Your task to perform on an android device: uninstall "HBO Max: Stream TV & Movies" Image 0: 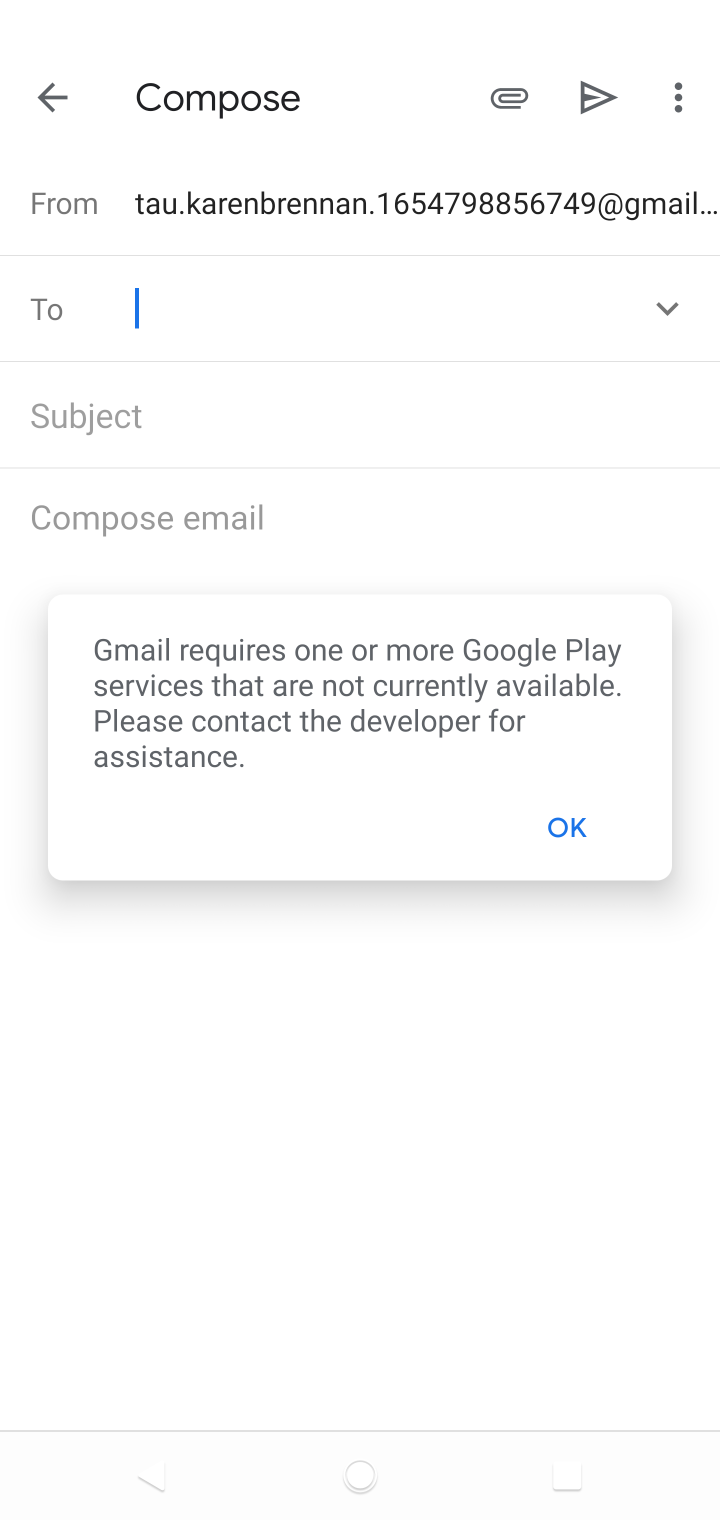
Step 0: press home button
Your task to perform on an android device: uninstall "HBO Max: Stream TV & Movies" Image 1: 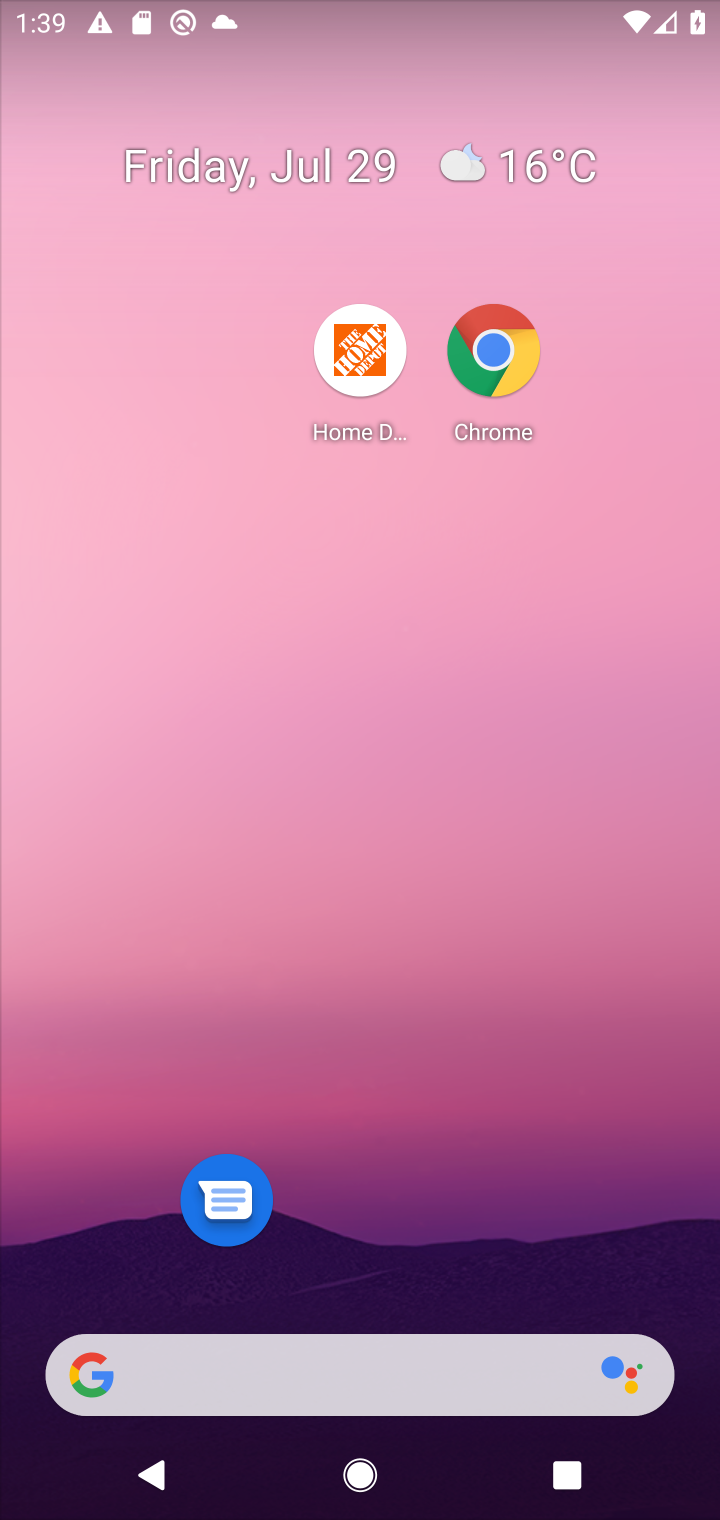
Step 1: drag from (584, 1219) to (385, 125)
Your task to perform on an android device: uninstall "HBO Max: Stream TV & Movies" Image 2: 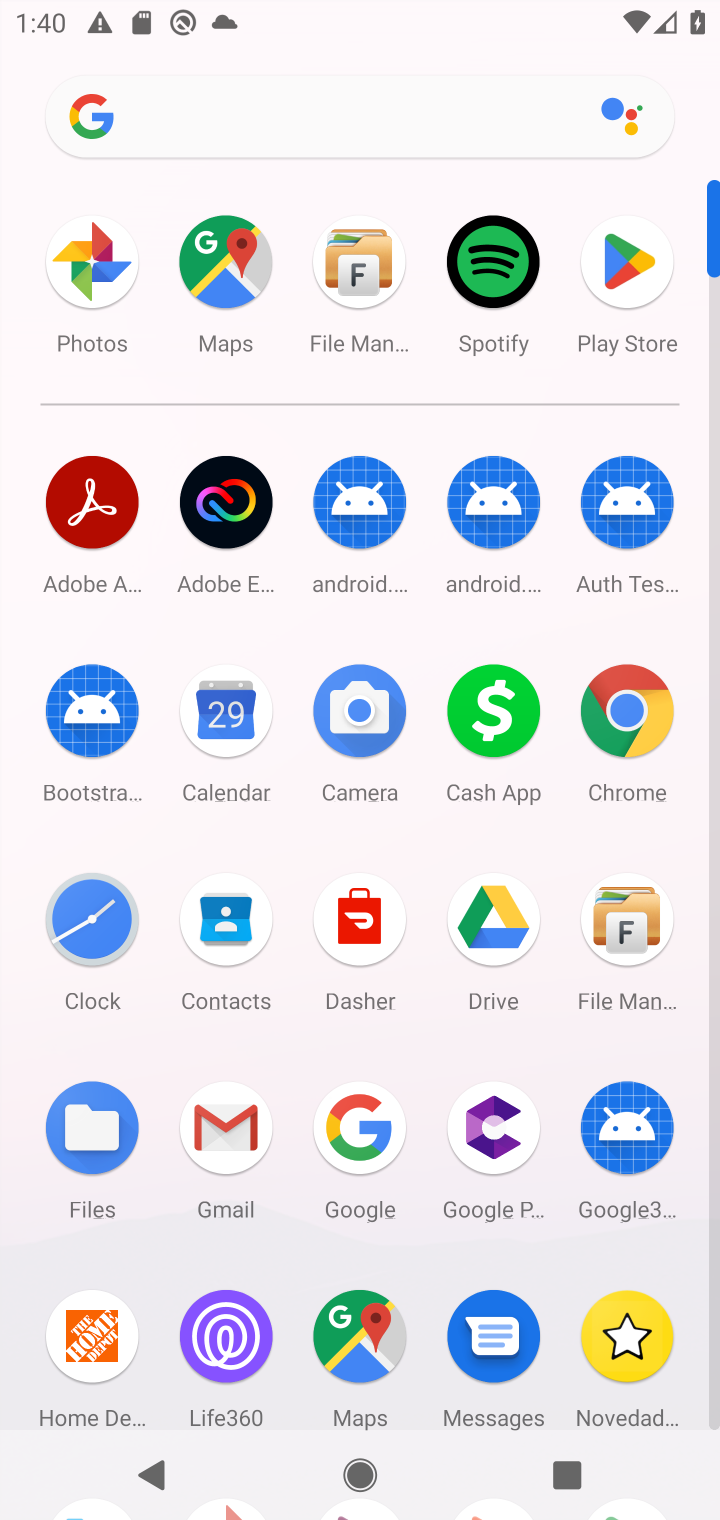
Step 2: click (621, 261)
Your task to perform on an android device: uninstall "HBO Max: Stream TV & Movies" Image 3: 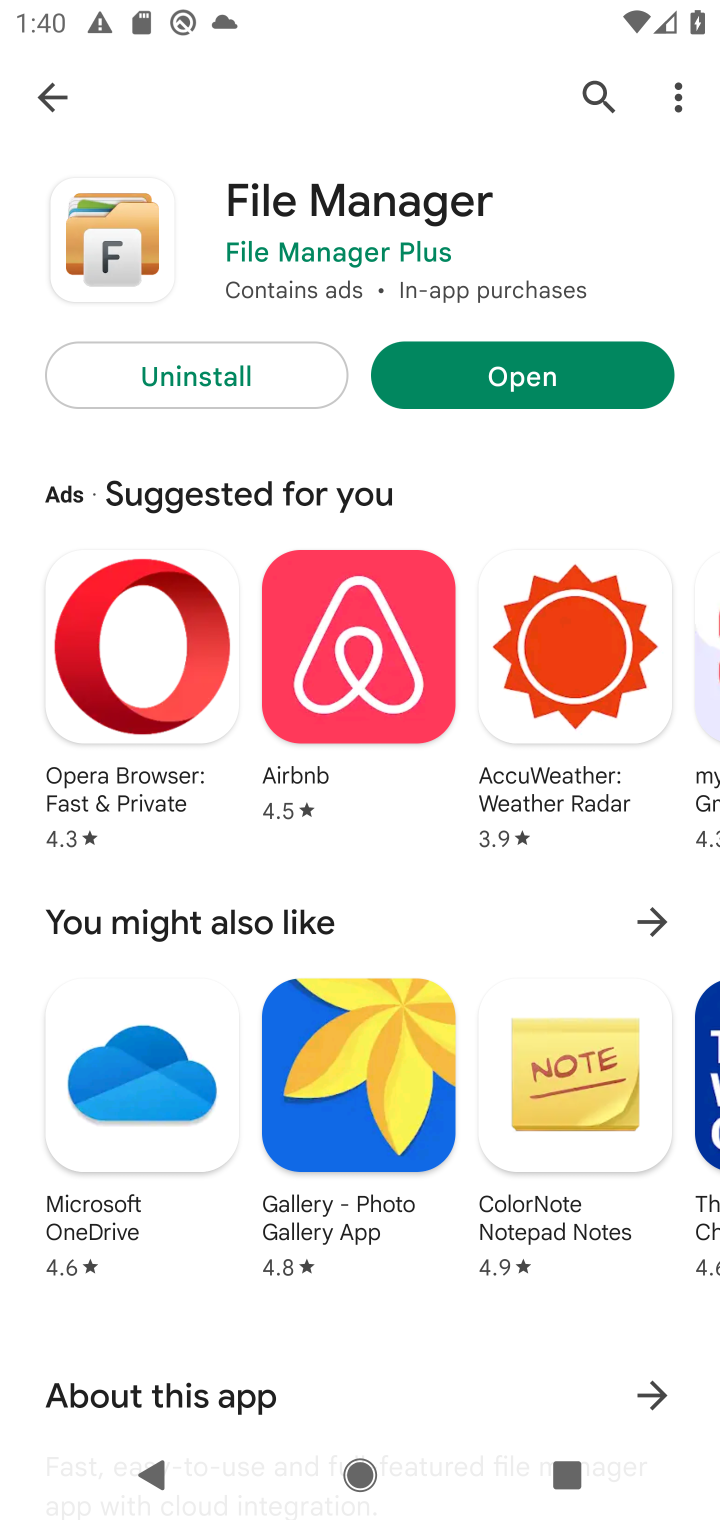
Step 3: click (589, 90)
Your task to perform on an android device: uninstall "HBO Max: Stream TV & Movies" Image 4: 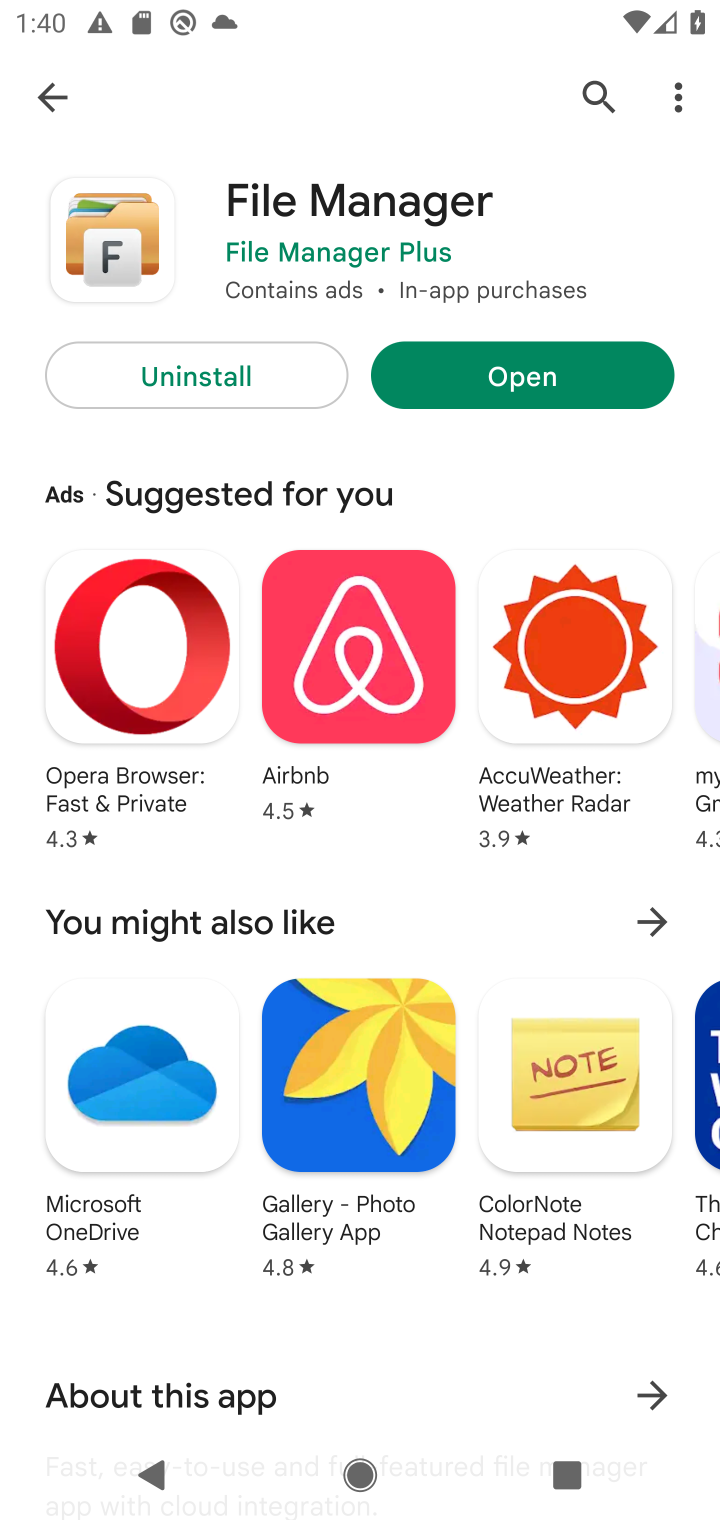
Step 4: click (397, 84)
Your task to perform on an android device: uninstall "HBO Max: Stream TV & Movies" Image 5: 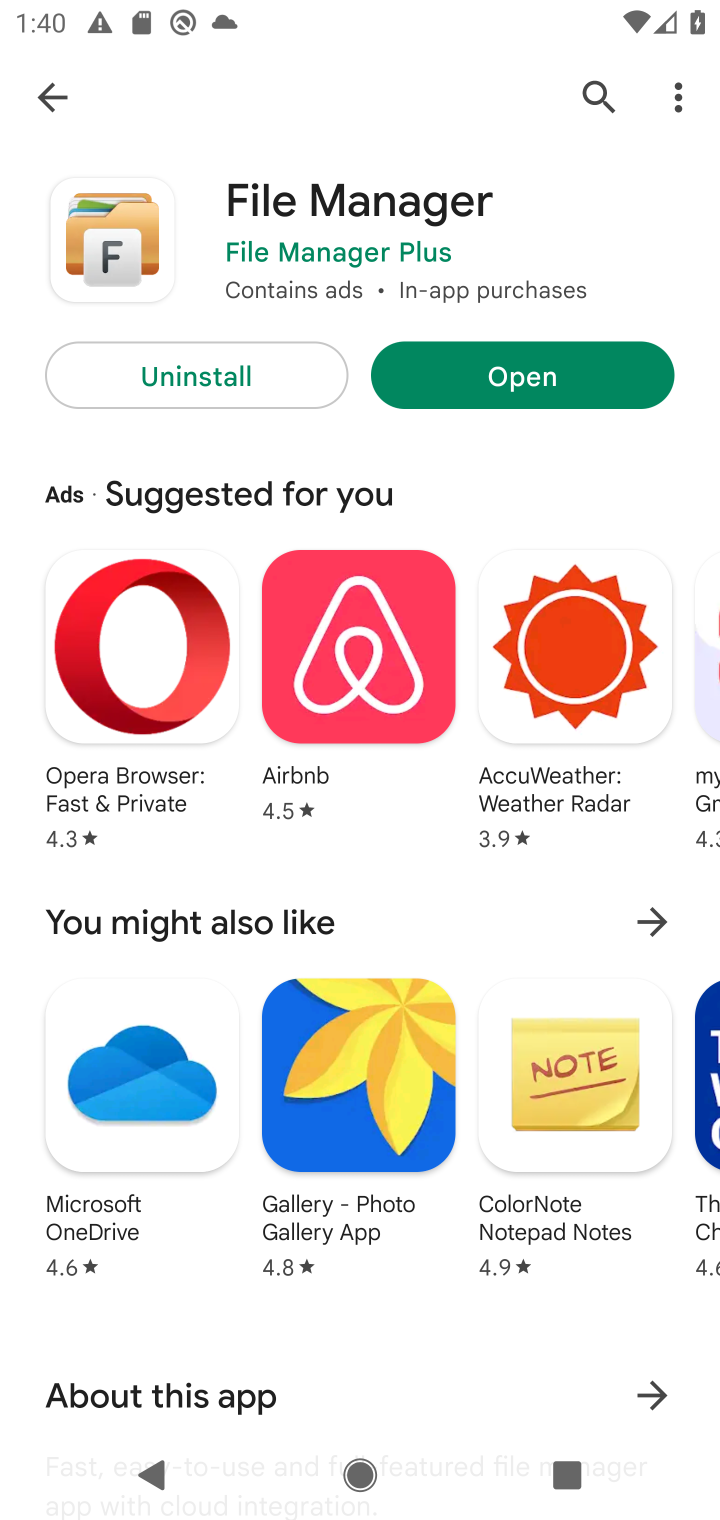
Step 5: press back button
Your task to perform on an android device: uninstall "HBO Max: Stream TV & Movies" Image 6: 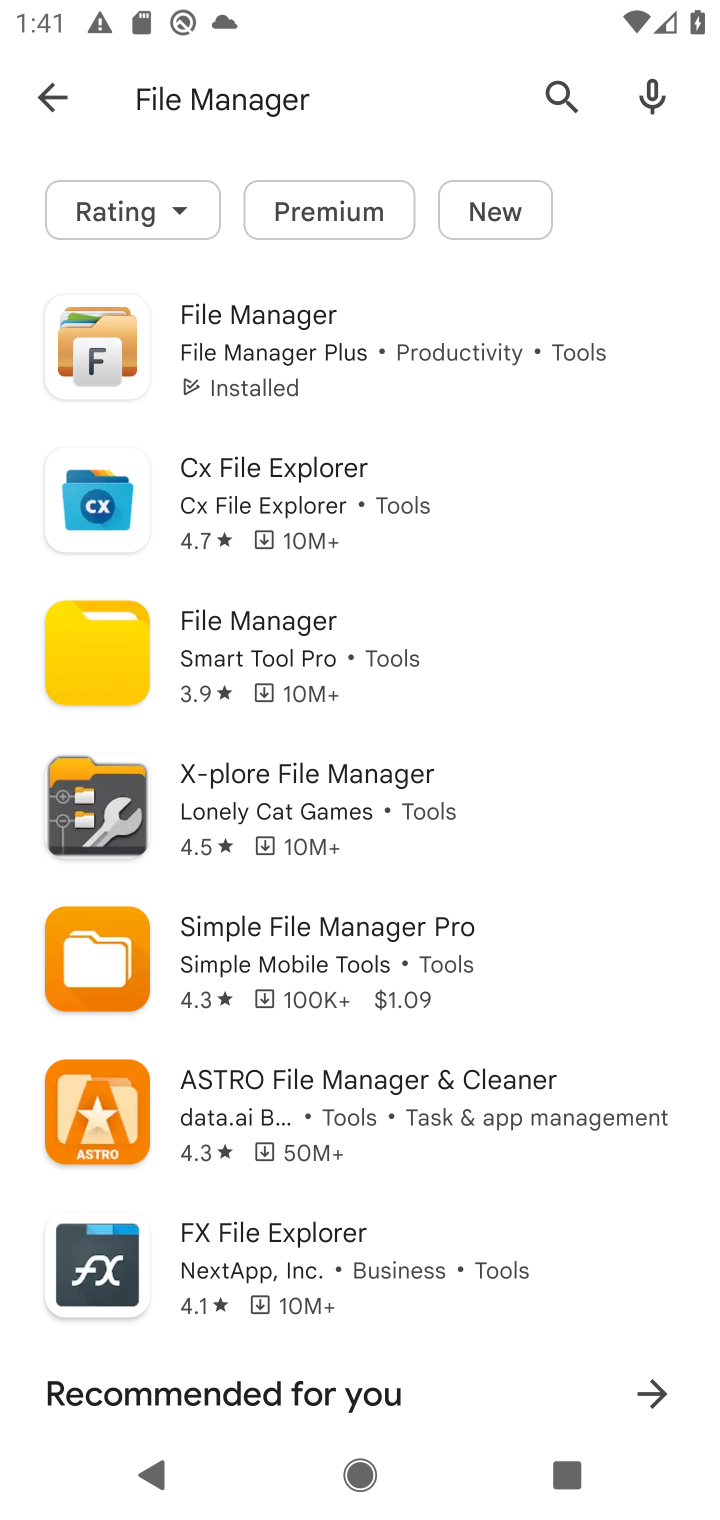
Step 6: click (187, 81)
Your task to perform on an android device: uninstall "HBO Max: Stream TV & Movies" Image 7: 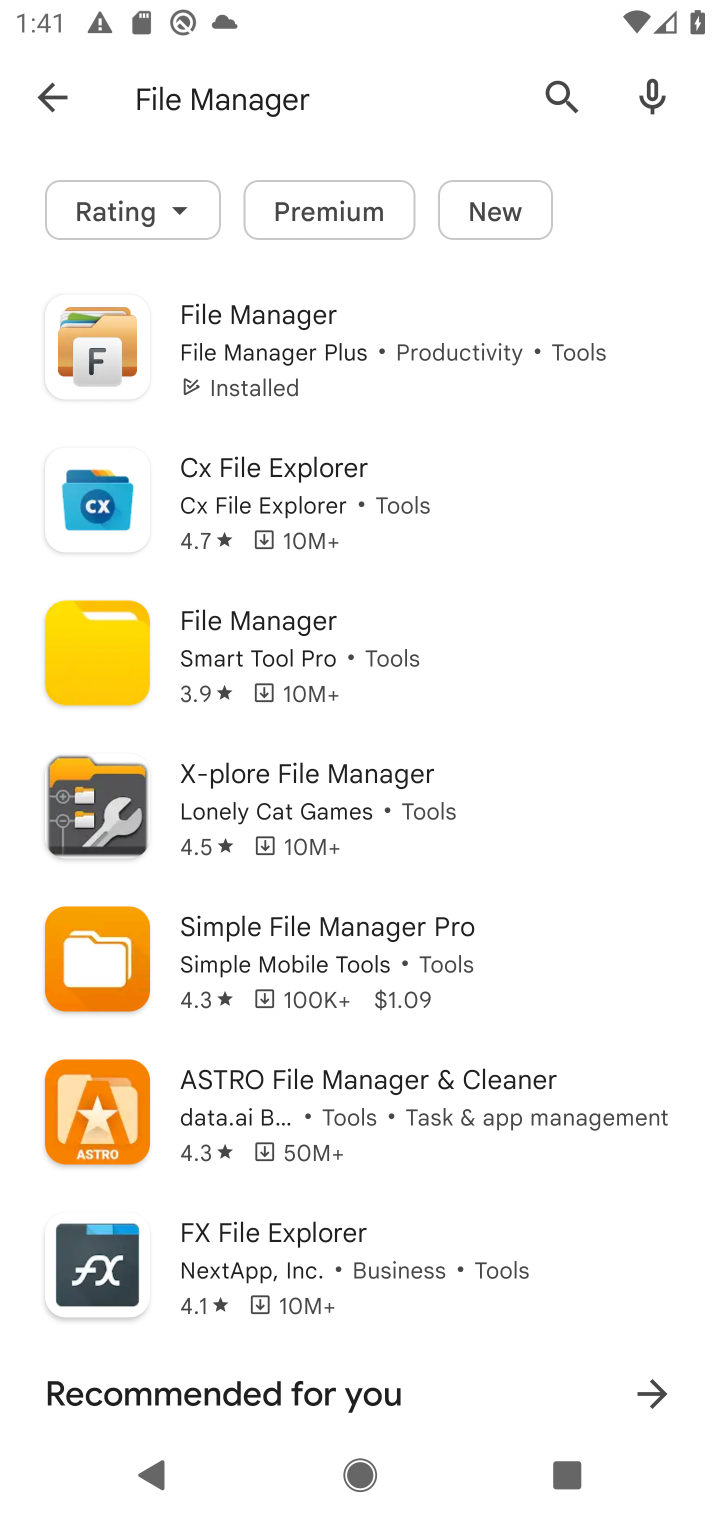
Step 7: click (569, 81)
Your task to perform on an android device: uninstall "HBO Max: Stream TV & Movies" Image 8: 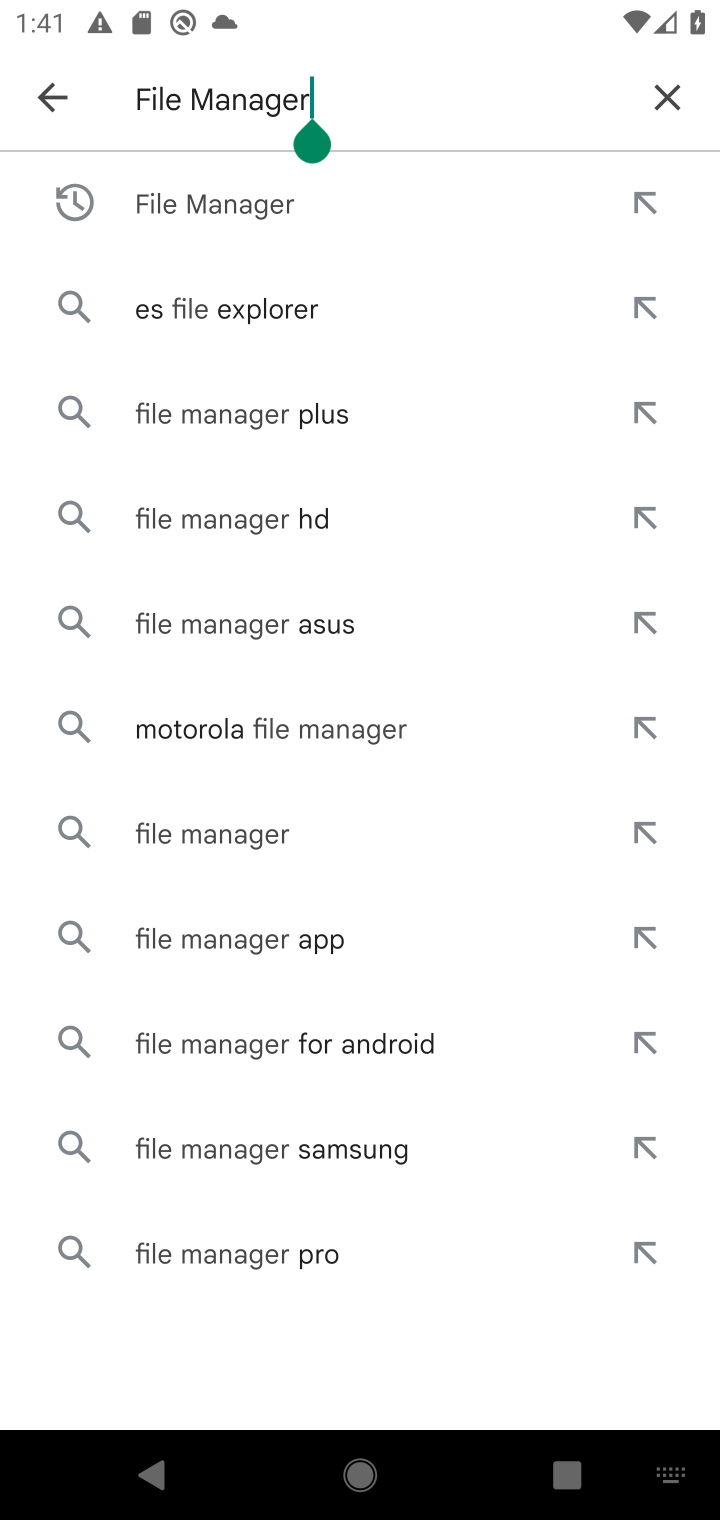
Step 8: click (669, 89)
Your task to perform on an android device: uninstall "HBO Max: Stream TV & Movies" Image 9: 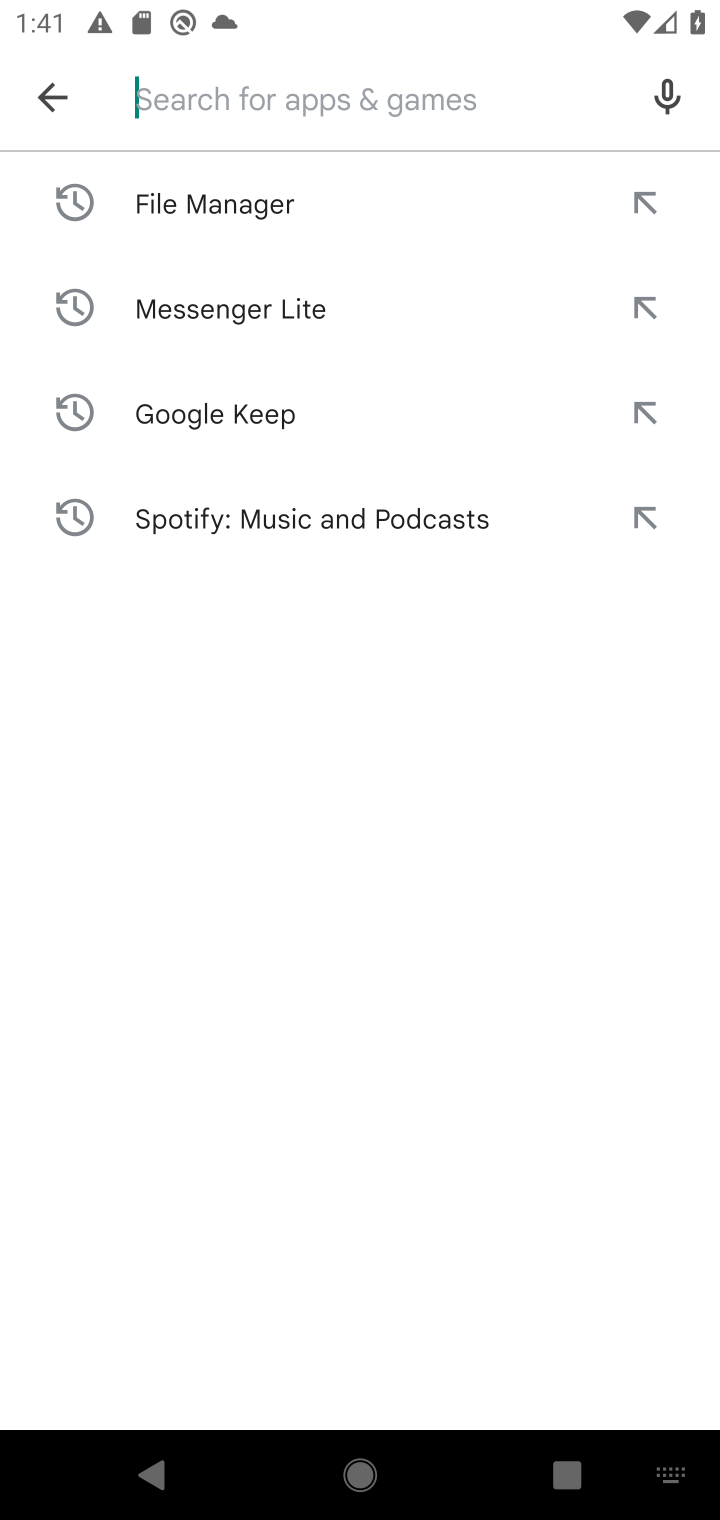
Step 9: type "HBO Max: Stream TV & Movies"
Your task to perform on an android device: uninstall "HBO Max: Stream TV & Movies" Image 10: 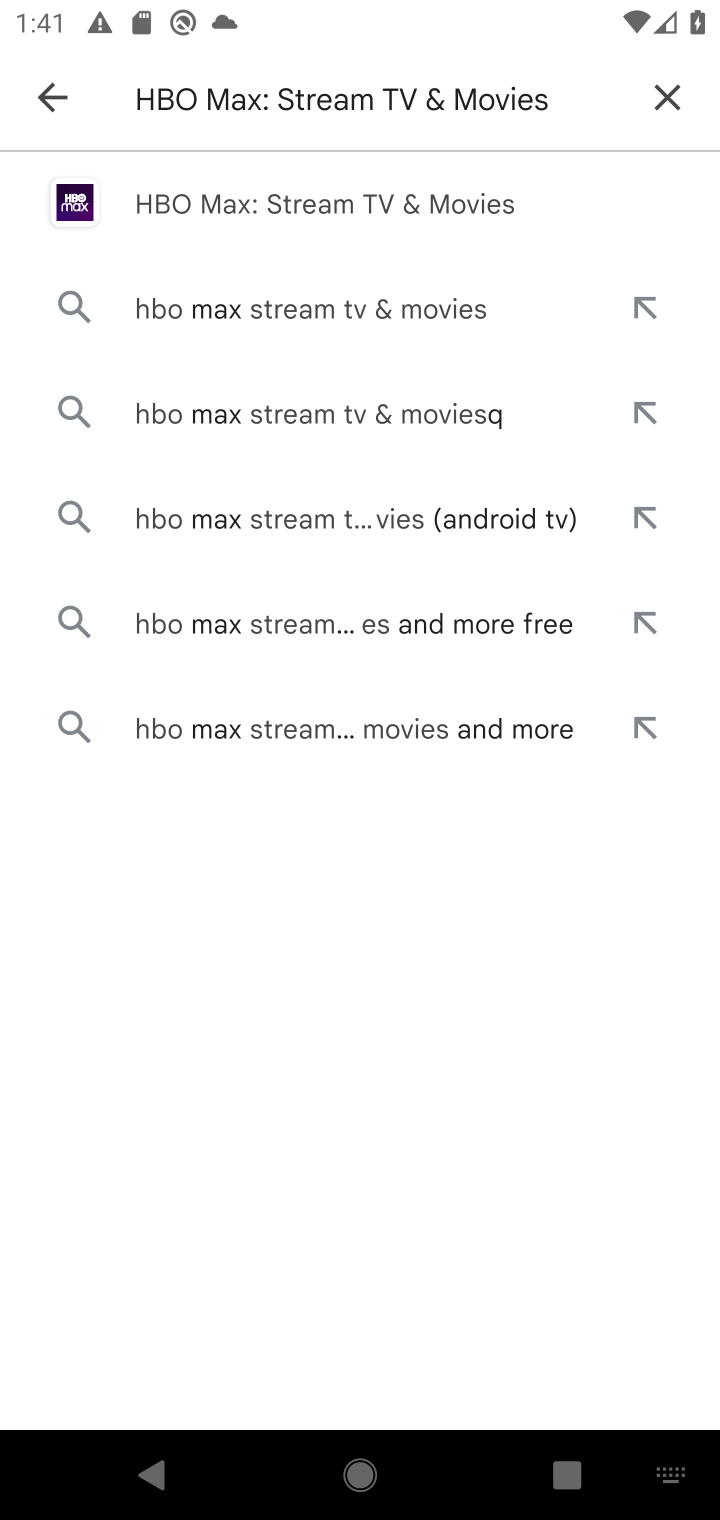
Step 10: press enter
Your task to perform on an android device: uninstall "HBO Max: Stream TV & Movies" Image 11: 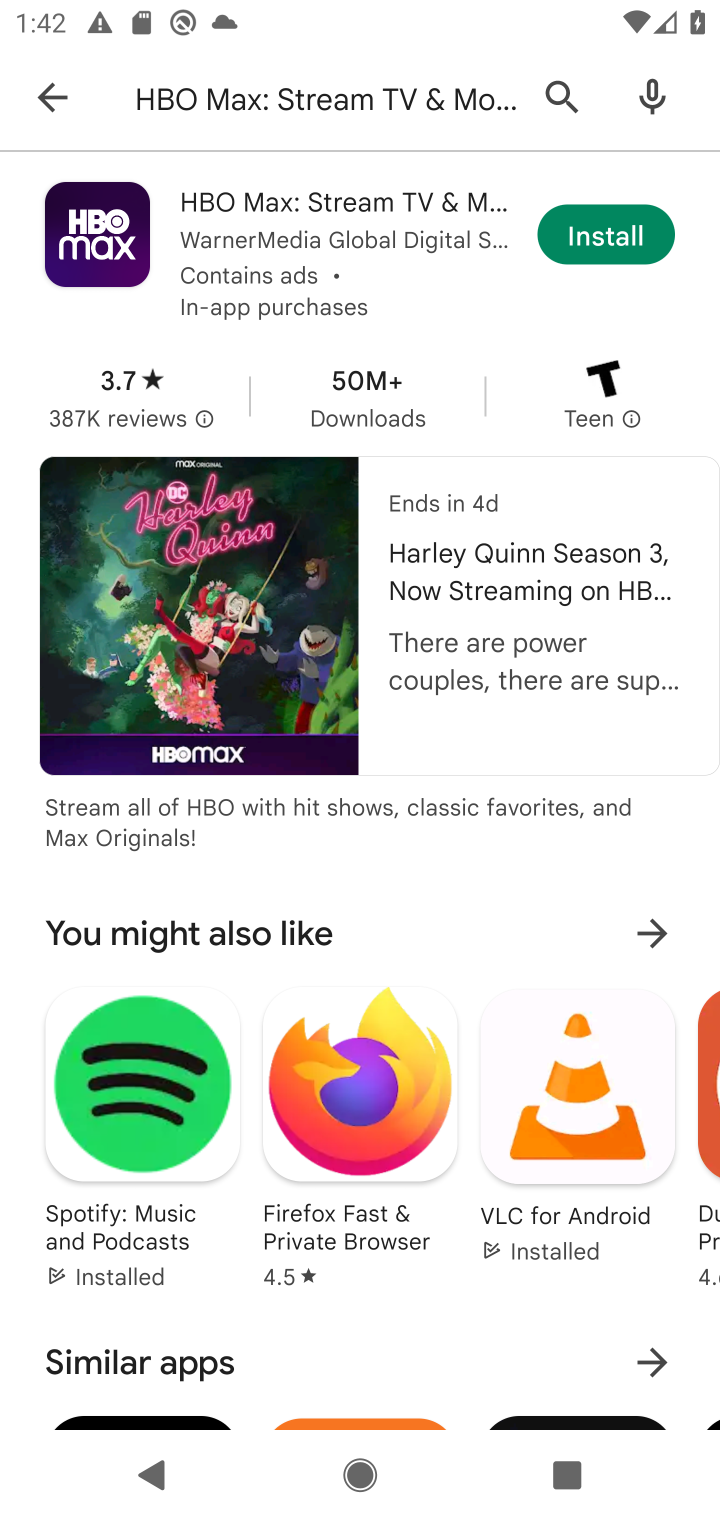
Step 11: click (224, 215)
Your task to perform on an android device: uninstall "HBO Max: Stream TV & Movies" Image 12: 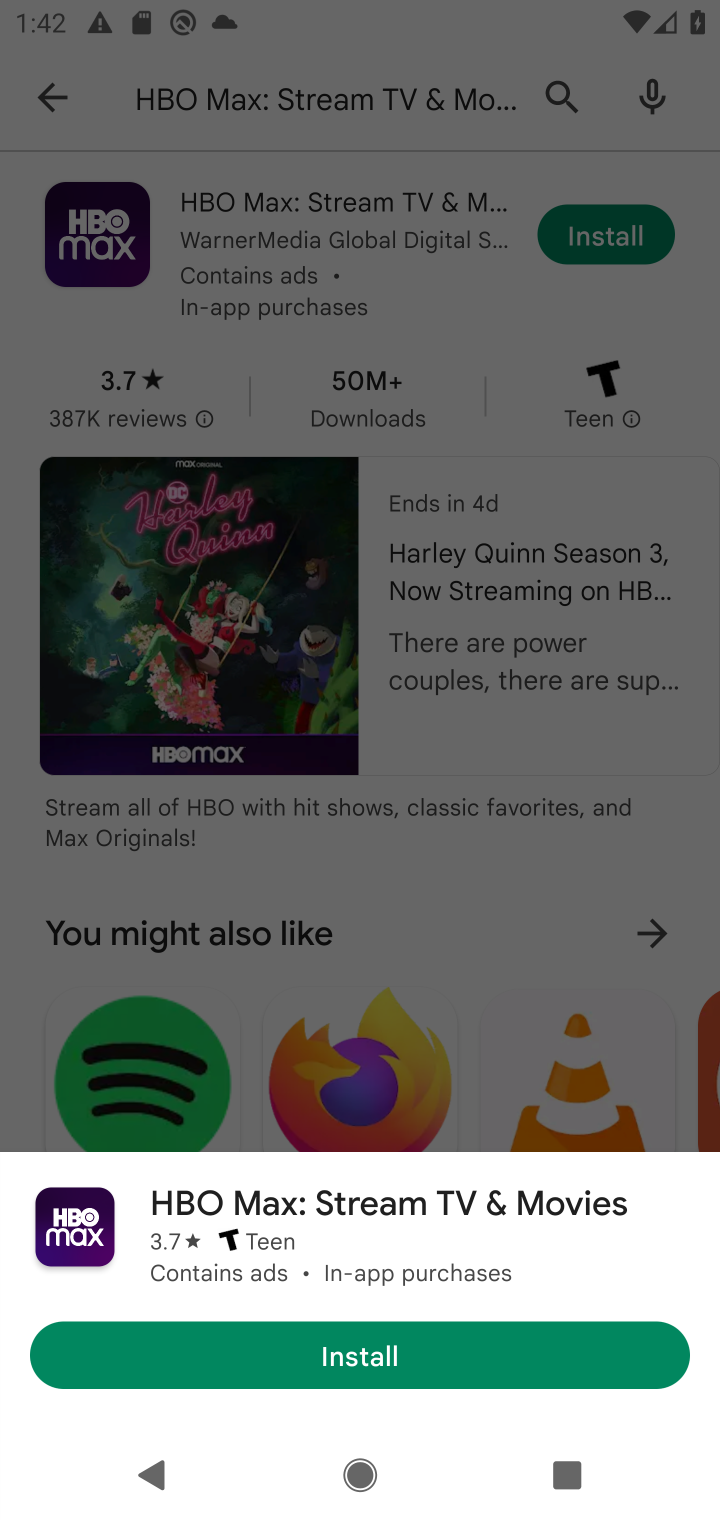
Step 12: click (291, 284)
Your task to perform on an android device: uninstall "HBO Max: Stream TV & Movies" Image 13: 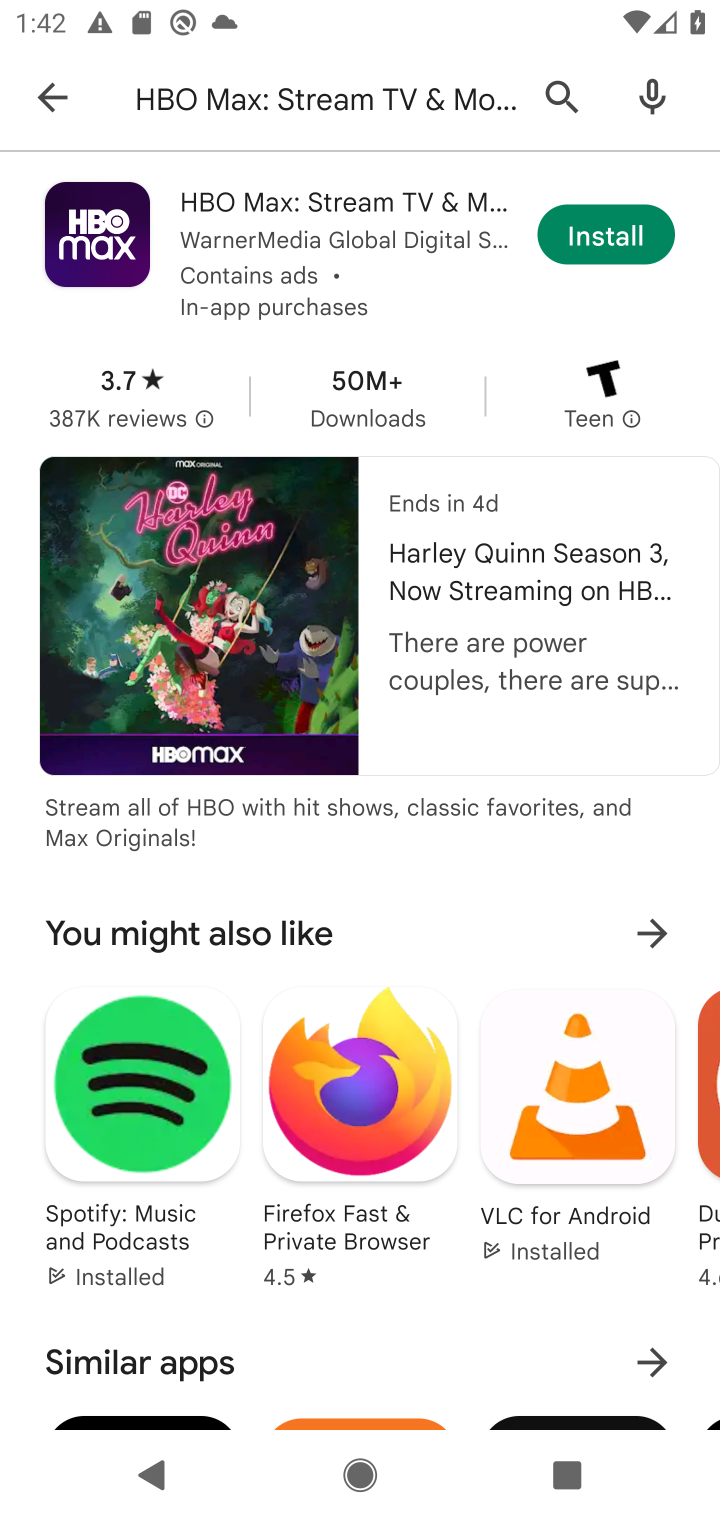
Step 13: click (301, 257)
Your task to perform on an android device: uninstall "HBO Max: Stream TV & Movies" Image 14: 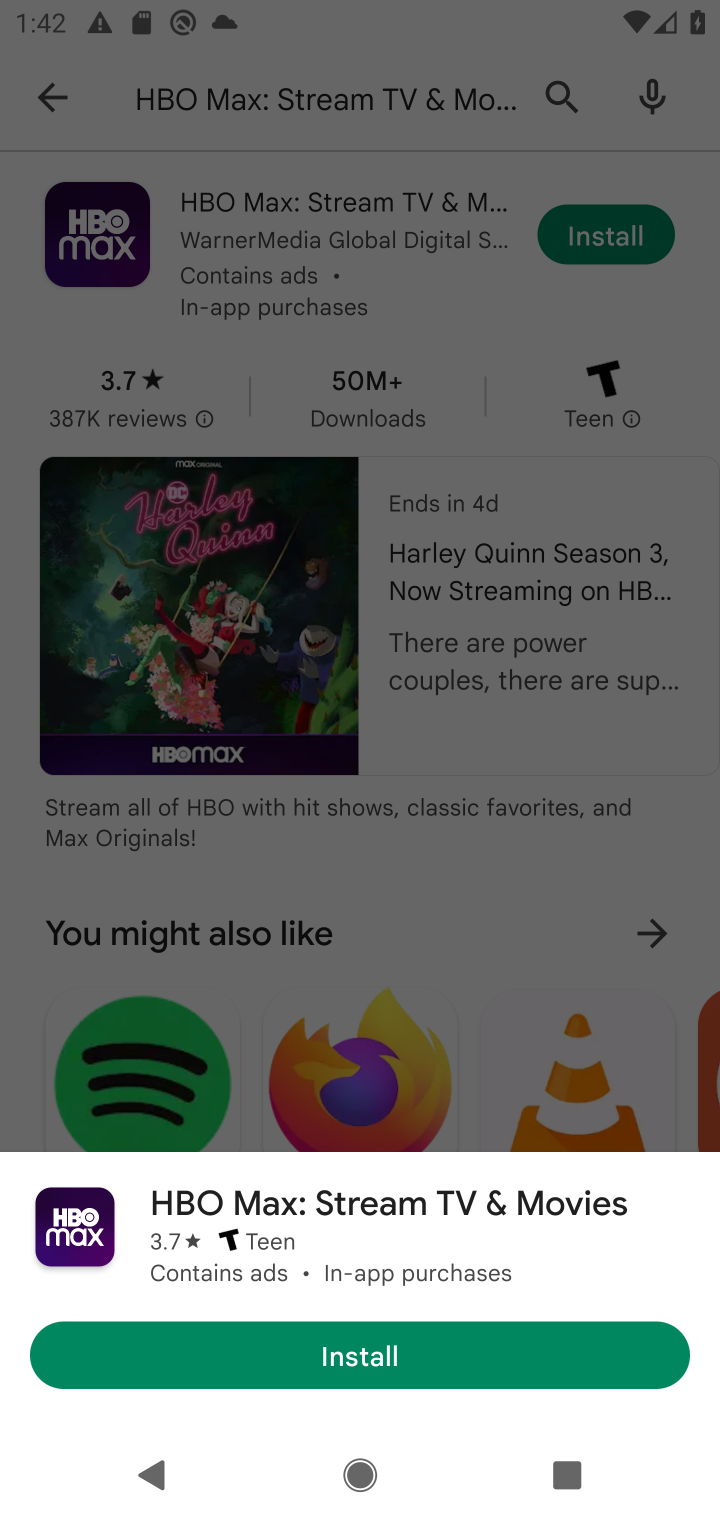
Step 14: click (301, 257)
Your task to perform on an android device: uninstall "HBO Max: Stream TV & Movies" Image 15: 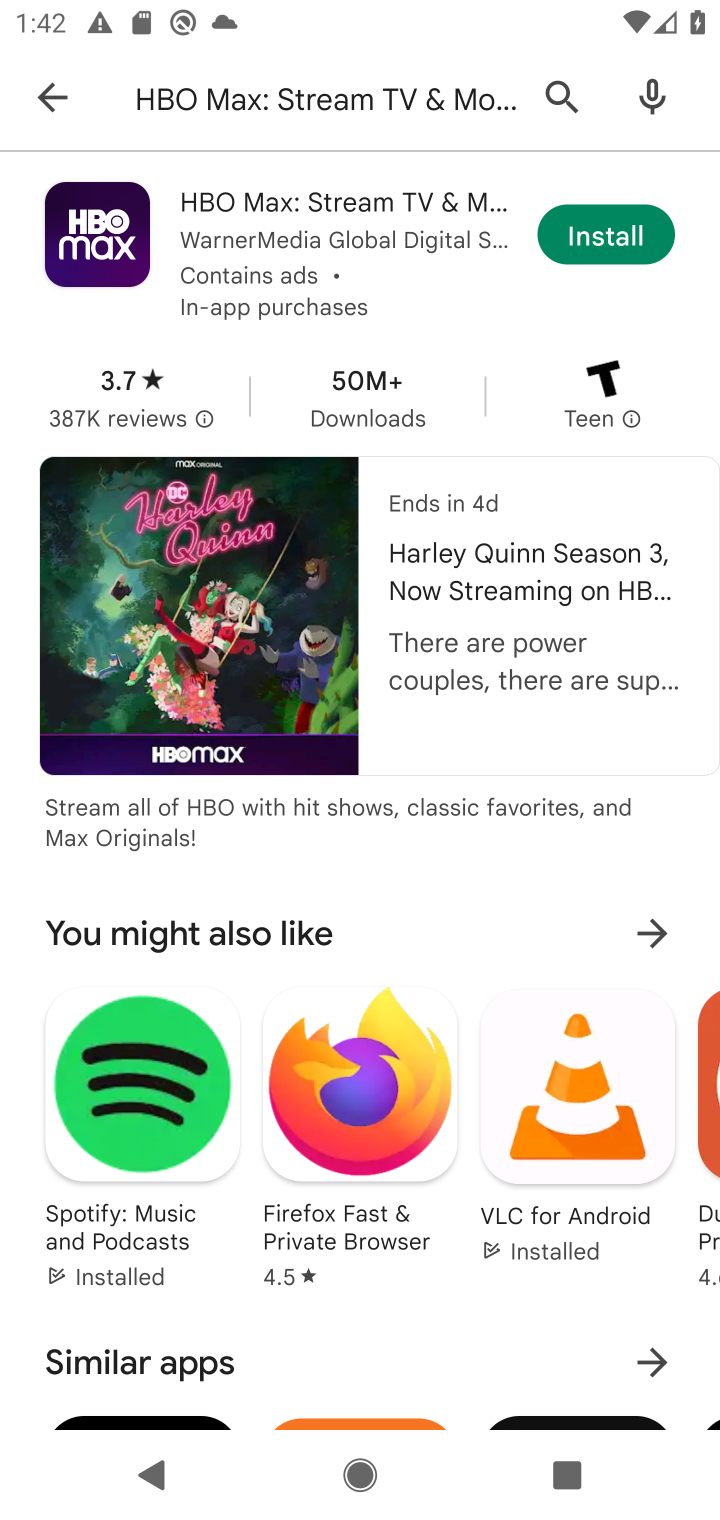
Step 15: task complete